Your task to perform on an android device: Open Chrome and go to settings Image 0: 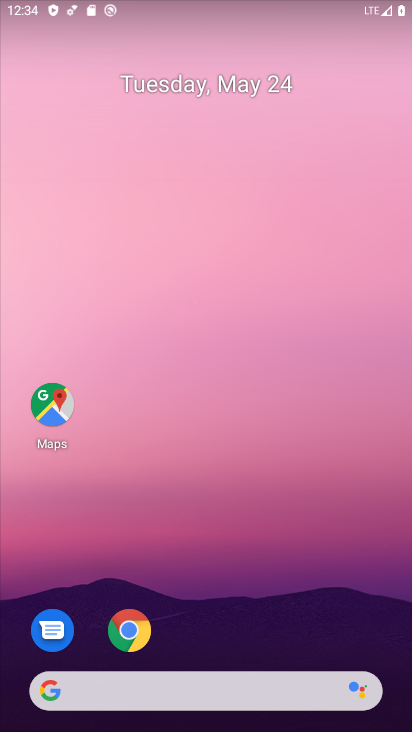
Step 0: click (133, 627)
Your task to perform on an android device: Open Chrome and go to settings Image 1: 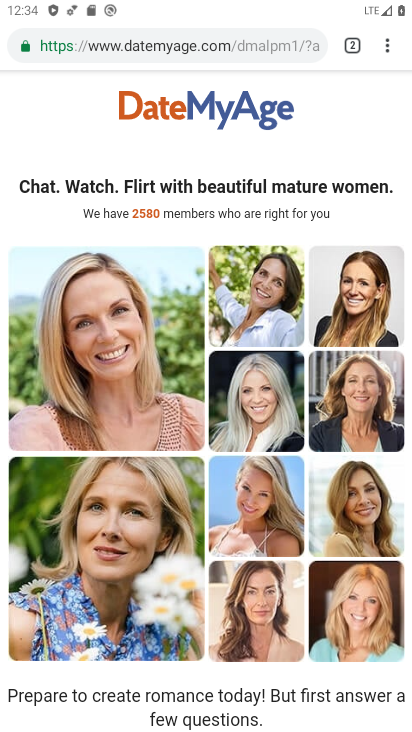
Step 1: click (391, 43)
Your task to perform on an android device: Open Chrome and go to settings Image 2: 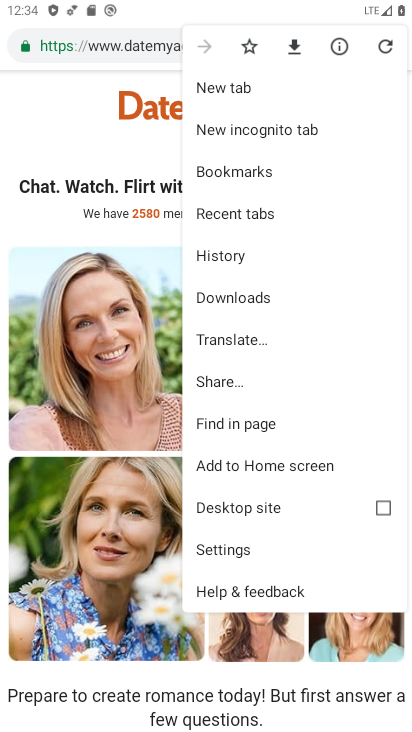
Step 2: click (254, 544)
Your task to perform on an android device: Open Chrome and go to settings Image 3: 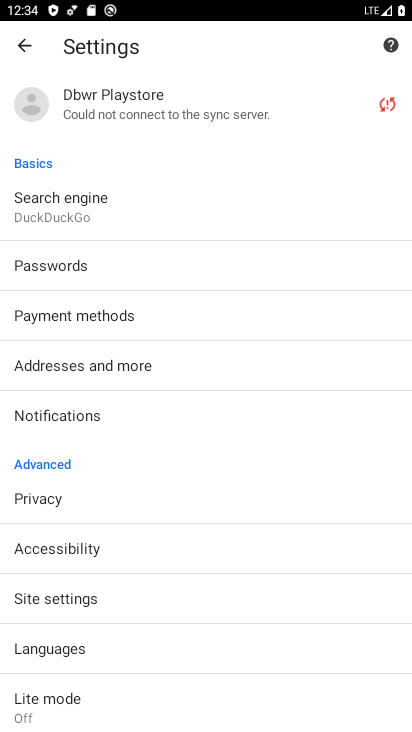
Step 3: task complete